Your task to perform on an android device: add a label to a message in the gmail app Image 0: 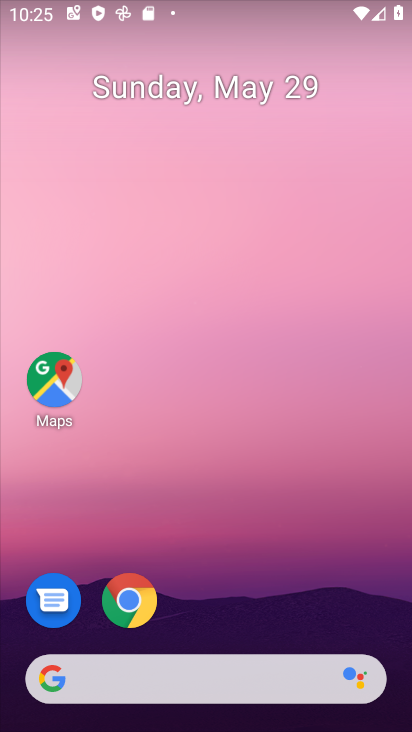
Step 0: drag from (191, 715) to (195, 180)
Your task to perform on an android device: add a label to a message in the gmail app Image 1: 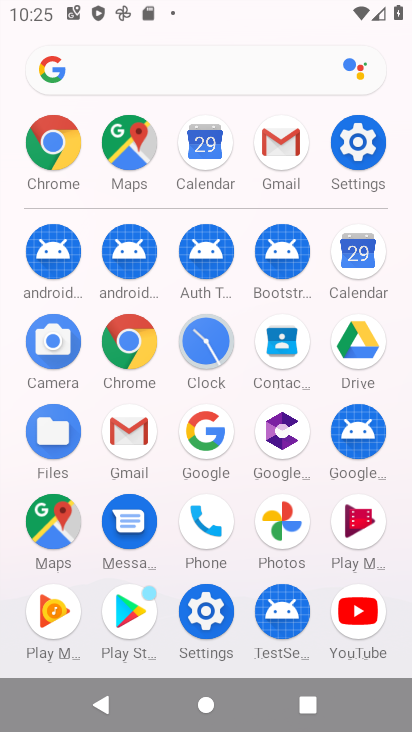
Step 1: click (139, 436)
Your task to perform on an android device: add a label to a message in the gmail app Image 2: 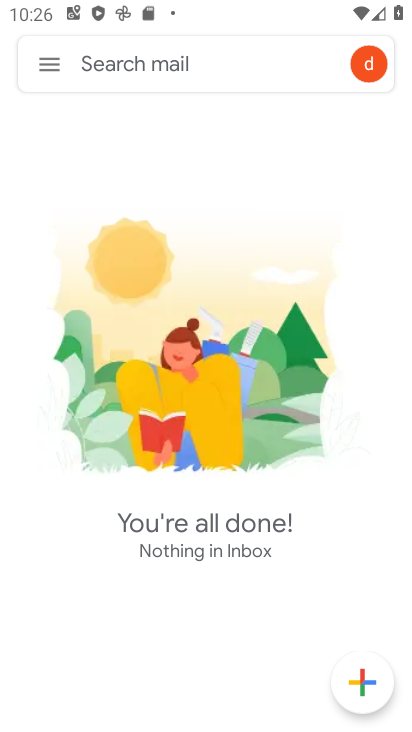
Step 2: task complete